Your task to perform on an android device: turn on location history Image 0: 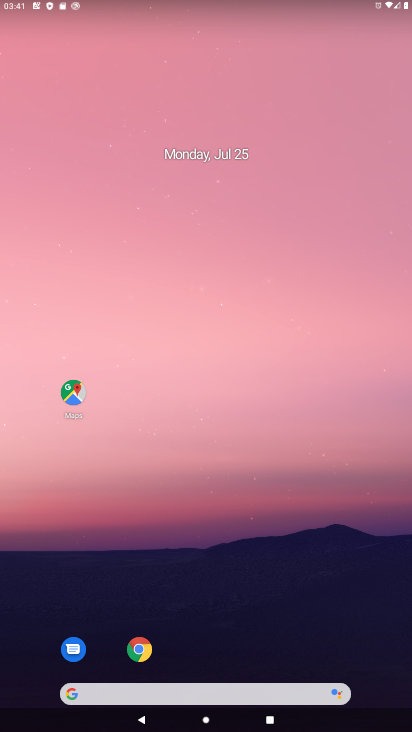
Step 0: click (73, 391)
Your task to perform on an android device: turn on location history Image 1: 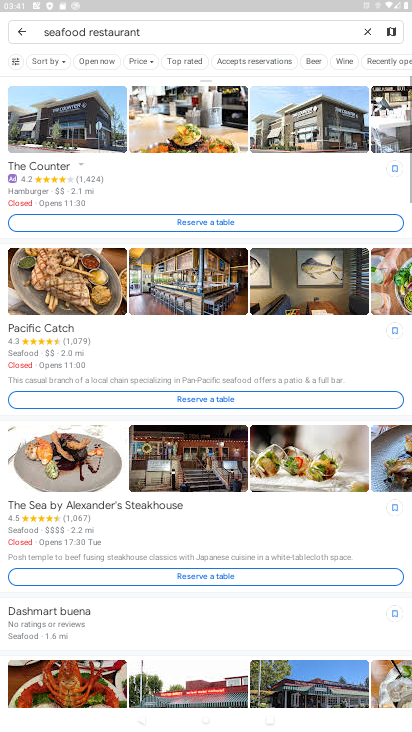
Step 1: click (364, 31)
Your task to perform on an android device: turn on location history Image 2: 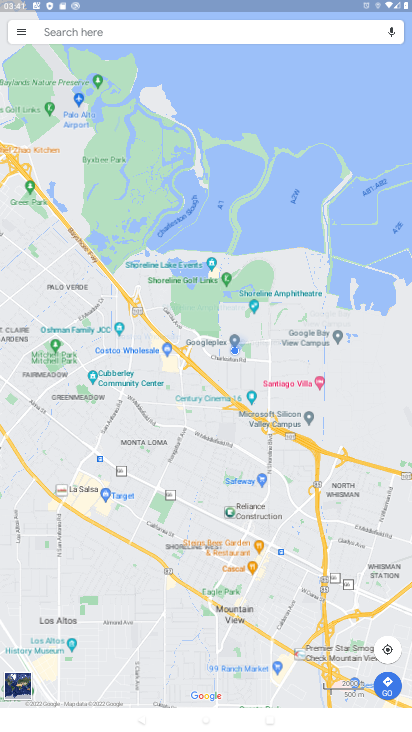
Step 2: click (21, 29)
Your task to perform on an android device: turn on location history Image 3: 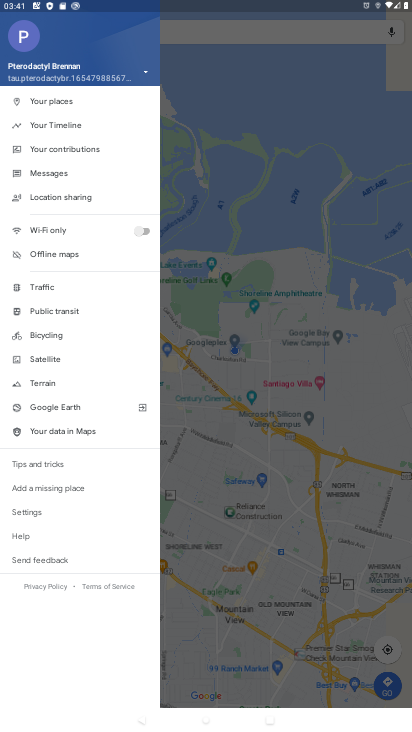
Step 3: click (26, 509)
Your task to perform on an android device: turn on location history Image 4: 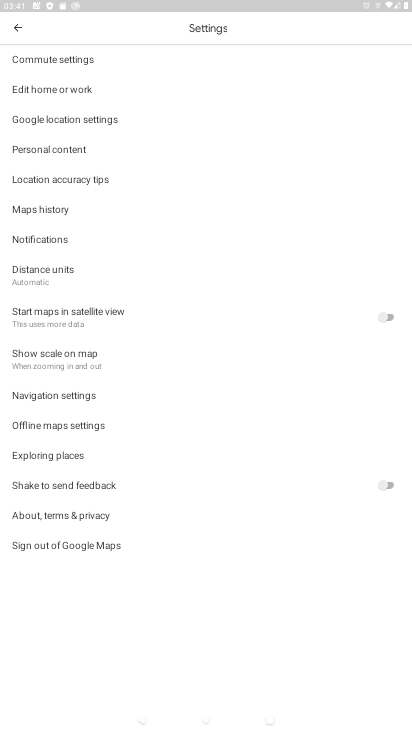
Step 4: click (51, 149)
Your task to perform on an android device: turn on location history Image 5: 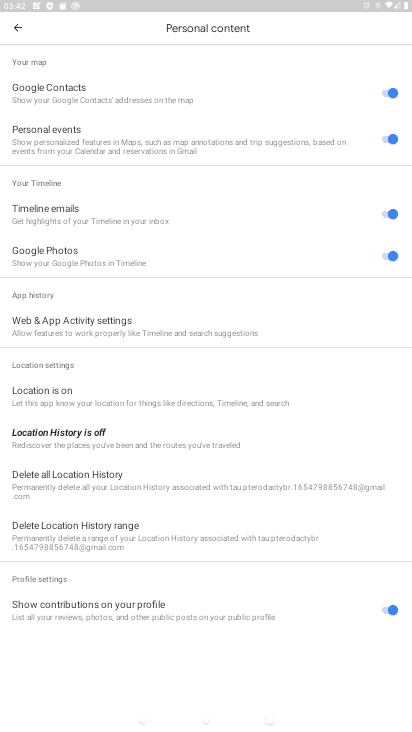
Step 5: click (61, 427)
Your task to perform on an android device: turn on location history Image 6: 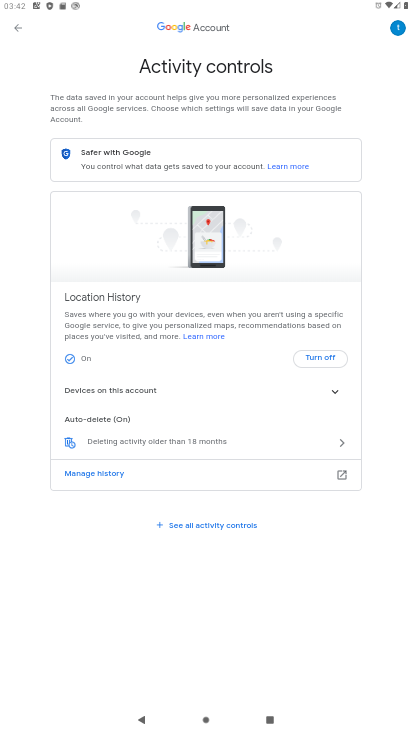
Step 6: task complete